Your task to perform on an android device: allow notifications from all sites in the chrome app Image 0: 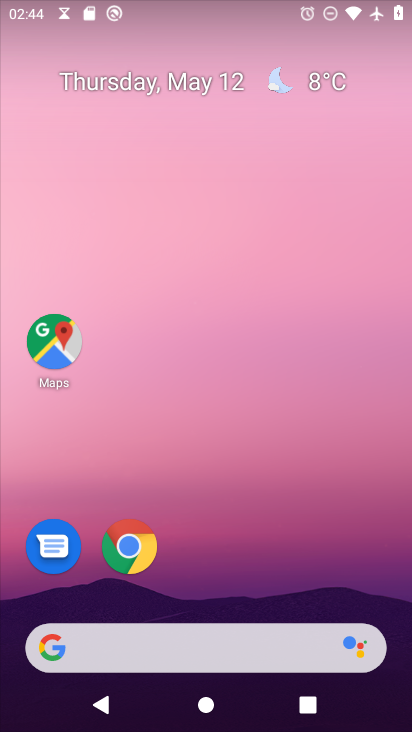
Step 0: drag from (211, 661) to (353, 144)
Your task to perform on an android device: allow notifications from all sites in the chrome app Image 1: 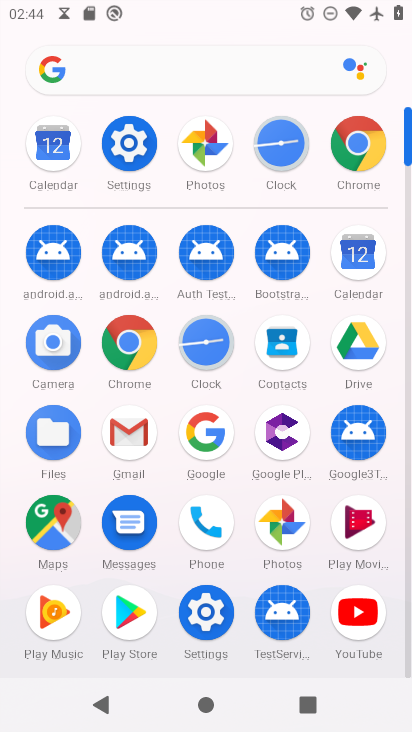
Step 1: click (363, 164)
Your task to perform on an android device: allow notifications from all sites in the chrome app Image 2: 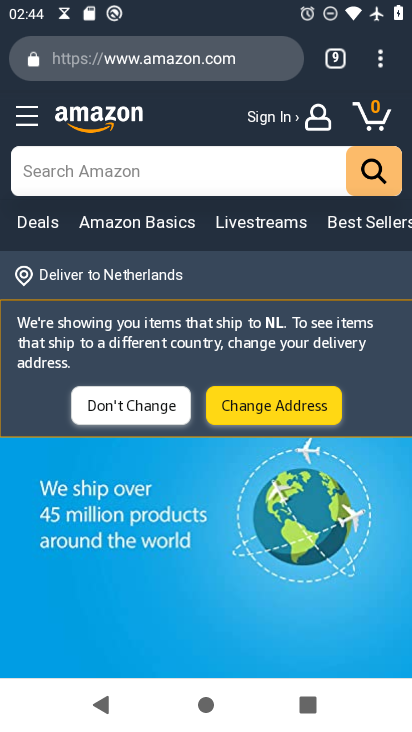
Step 2: drag from (382, 61) to (237, 576)
Your task to perform on an android device: allow notifications from all sites in the chrome app Image 3: 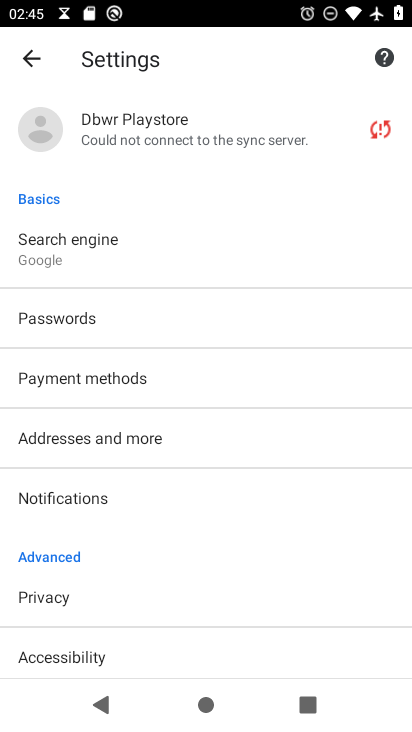
Step 3: drag from (179, 624) to (327, 223)
Your task to perform on an android device: allow notifications from all sites in the chrome app Image 4: 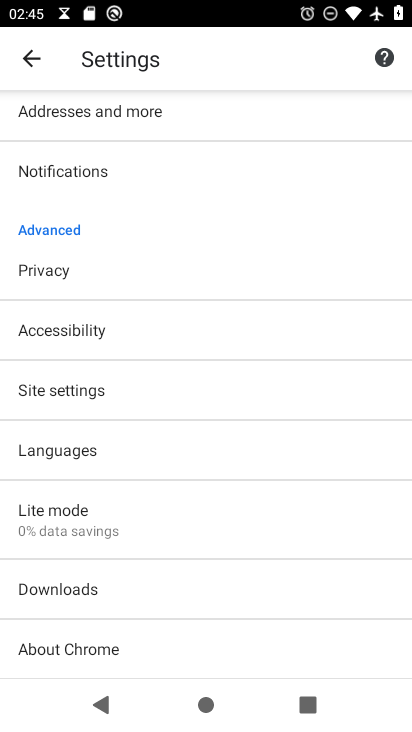
Step 4: click (74, 397)
Your task to perform on an android device: allow notifications from all sites in the chrome app Image 5: 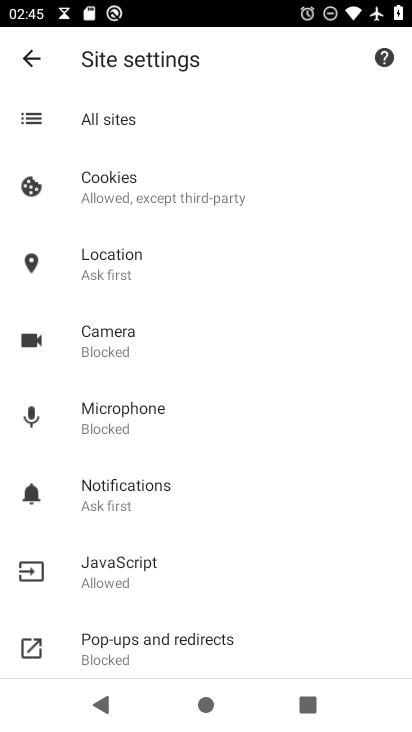
Step 5: click (114, 493)
Your task to perform on an android device: allow notifications from all sites in the chrome app Image 6: 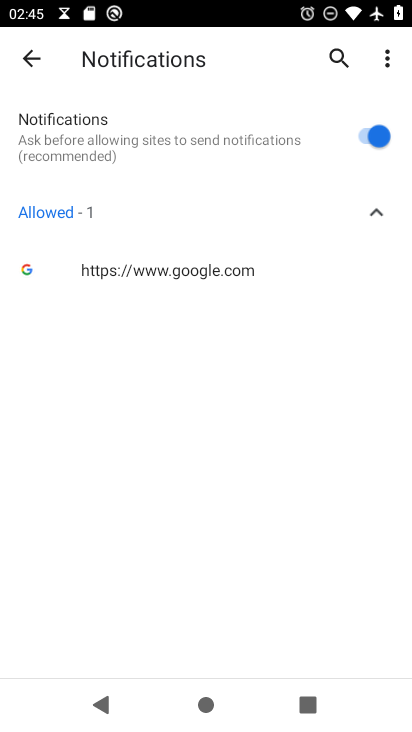
Step 6: task complete